Your task to perform on an android device: Toggle the flashlight Image 0: 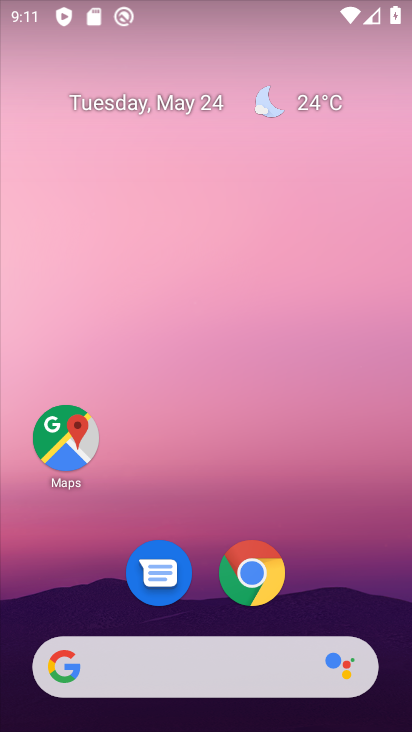
Step 0: click (388, 619)
Your task to perform on an android device: Toggle the flashlight Image 1: 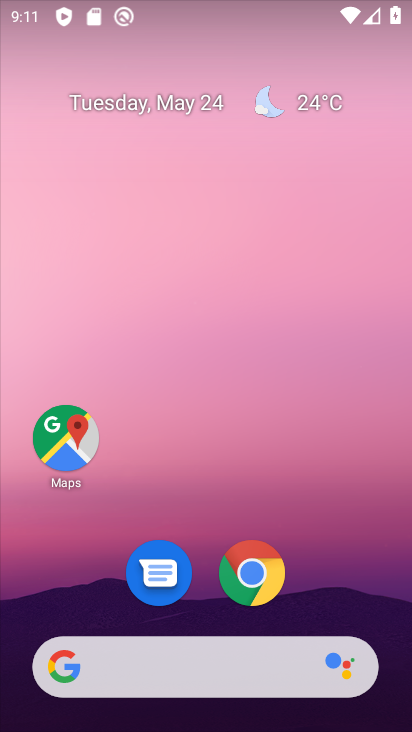
Step 1: drag from (233, 4) to (245, 443)
Your task to perform on an android device: Toggle the flashlight Image 2: 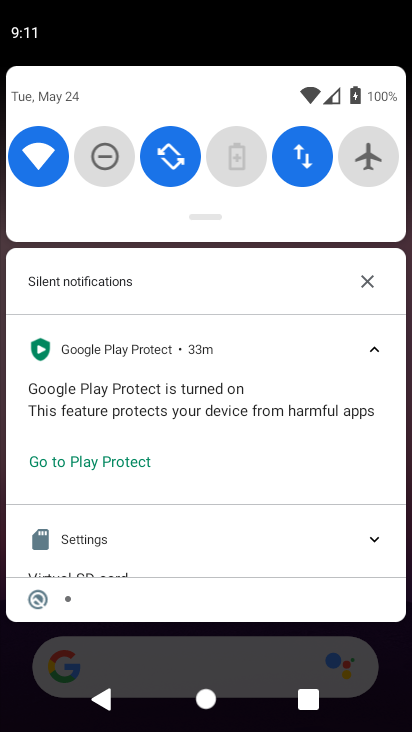
Step 2: drag from (213, 213) to (214, 485)
Your task to perform on an android device: Toggle the flashlight Image 3: 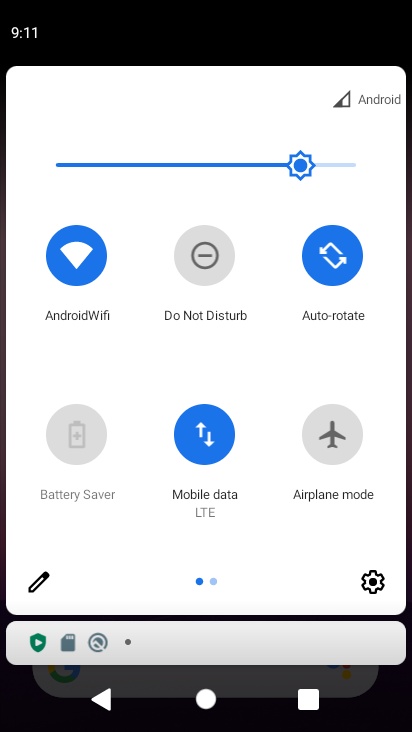
Step 3: click (36, 580)
Your task to perform on an android device: Toggle the flashlight Image 4: 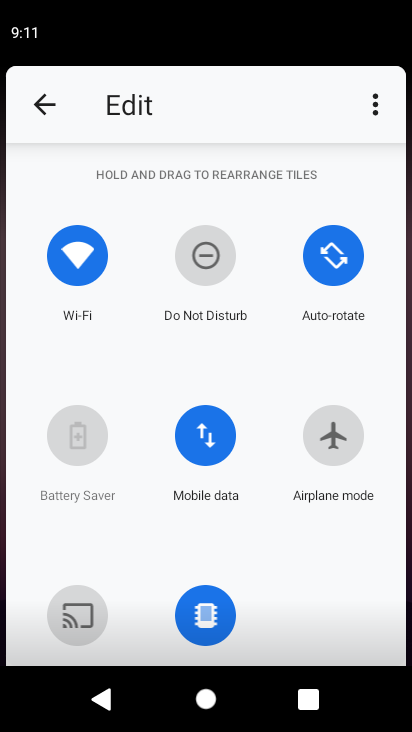
Step 4: task complete